Your task to perform on an android device: Open accessibility settings Image 0: 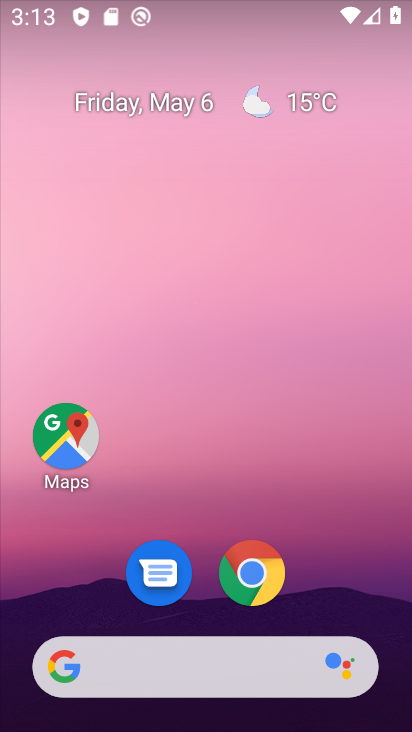
Step 0: drag from (204, 606) to (265, 198)
Your task to perform on an android device: Open accessibility settings Image 1: 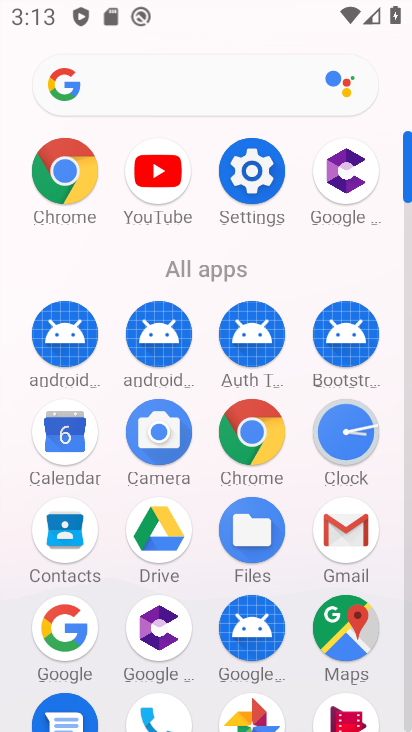
Step 1: click (250, 159)
Your task to perform on an android device: Open accessibility settings Image 2: 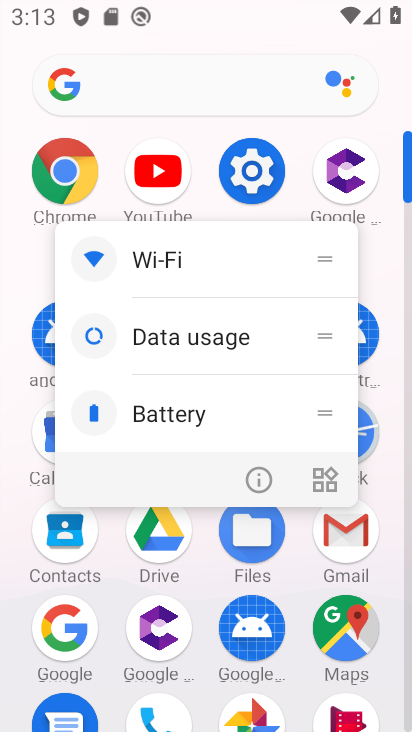
Step 2: click (249, 472)
Your task to perform on an android device: Open accessibility settings Image 3: 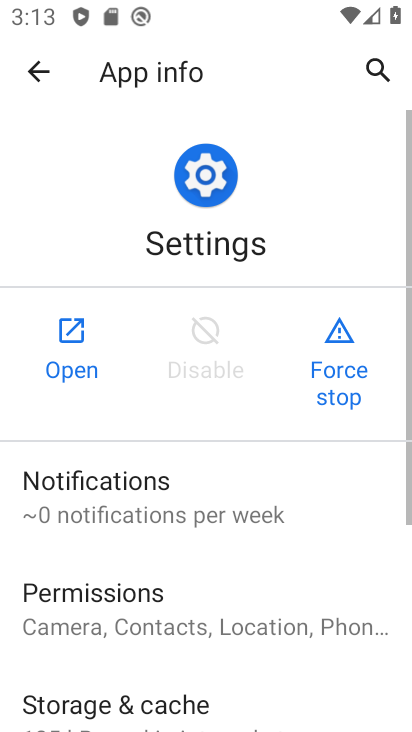
Step 3: click (72, 348)
Your task to perform on an android device: Open accessibility settings Image 4: 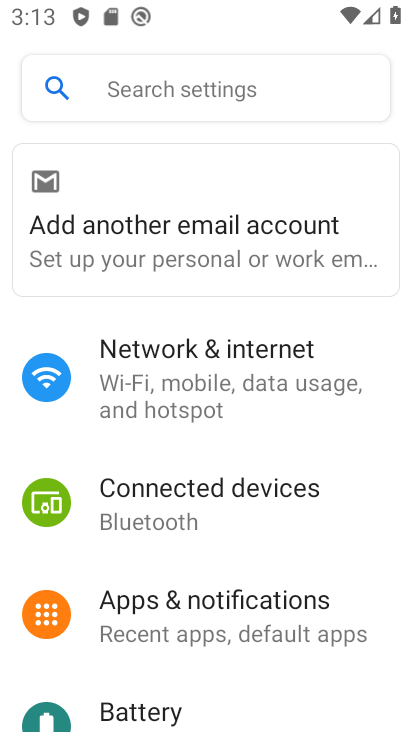
Step 4: drag from (244, 630) to (310, 167)
Your task to perform on an android device: Open accessibility settings Image 5: 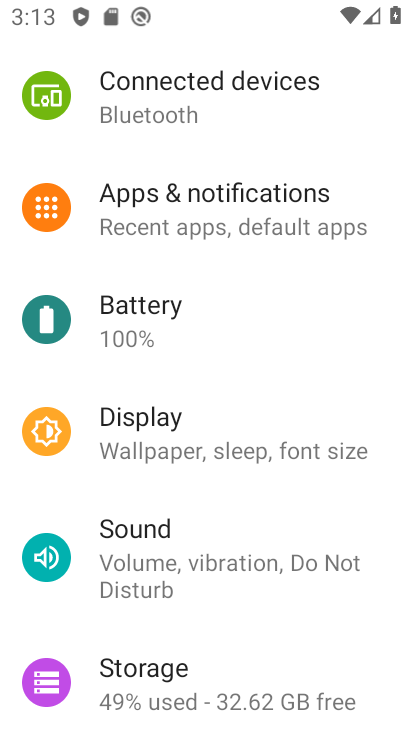
Step 5: drag from (202, 513) to (227, 231)
Your task to perform on an android device: Open accessibility settings Image 6: 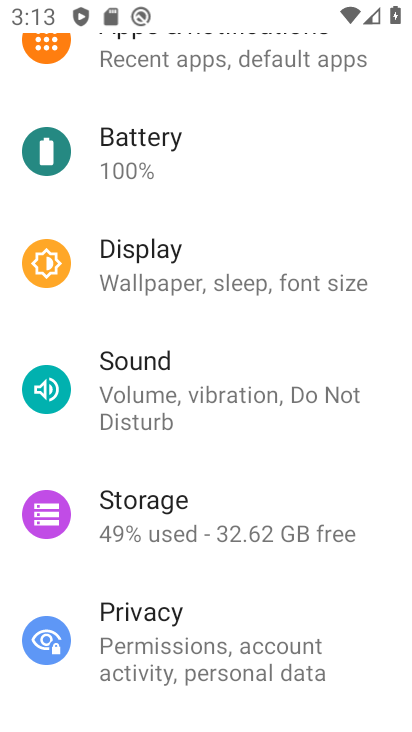
Step 6: drag from (184, 582) to (216, 310)
Your task to perform on an android device: Open accessibility settings Image 7: 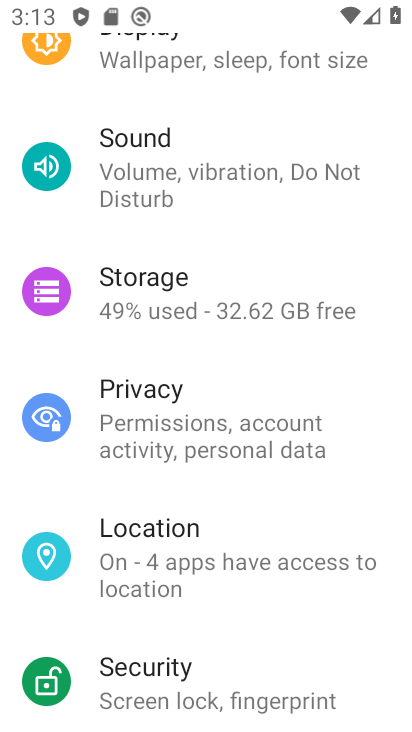
Step 7: drag from (182, 672) to (203, 268)
Your task to perform on an android device: Open accessibility settings Image 8: 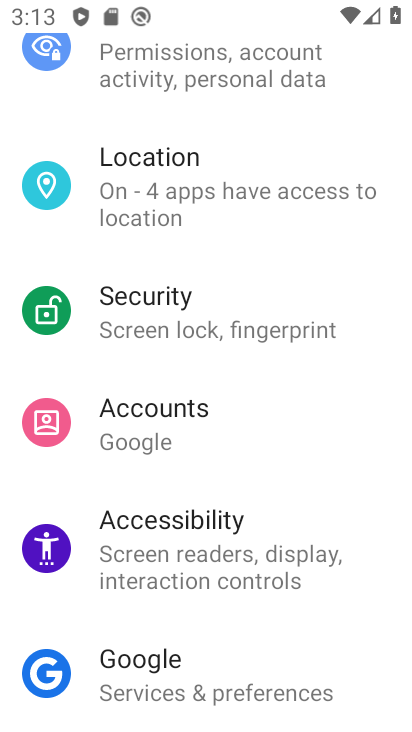
Step 8: click (181, 557)
Your task to perform on an android device: Open accessibility settings Image 9: 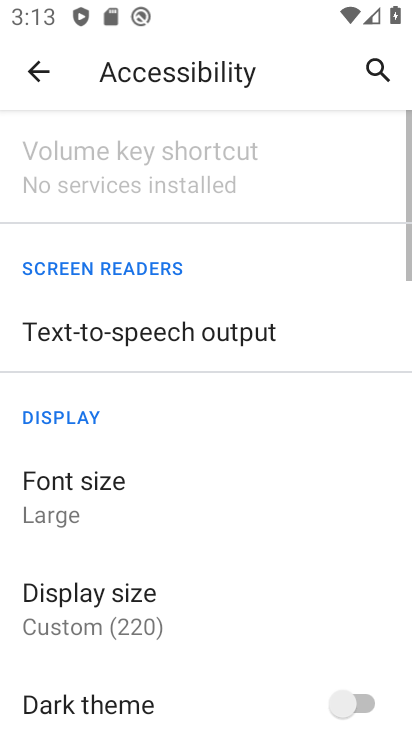
Step 9: task complete